Your task to perform on an android device: Clear the cart on amazon.com. Search for "acer predator" on amazon.com, select the first entry, and add it to the cart. Image 0: 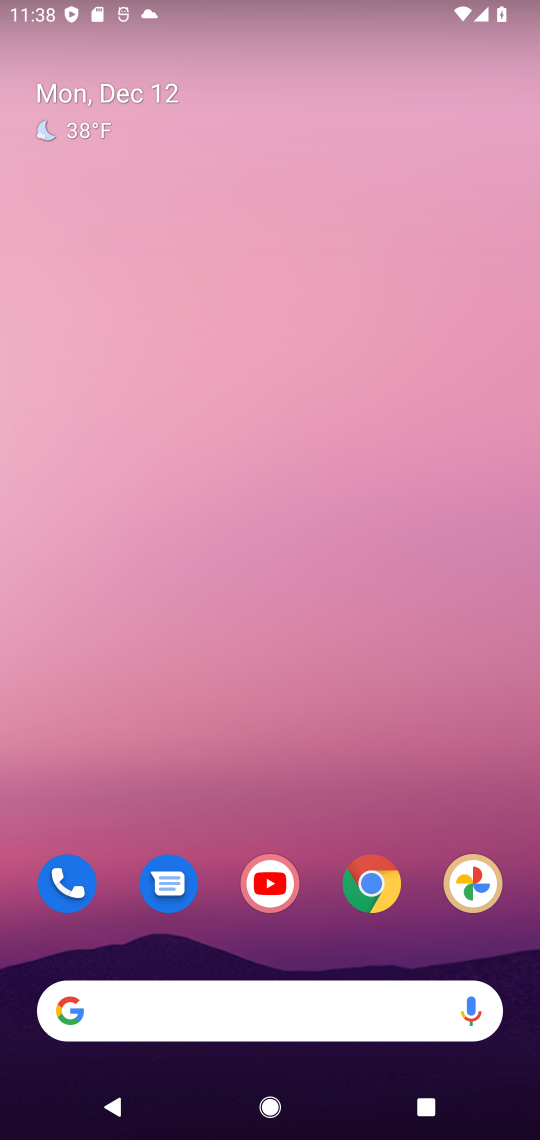
Step 0: click (245, 1009)
Your task to perform on an android device: Clear the cart on amazon.com. Search for "acer predator" on amazon.com, select the first entry, and add it to the cart. Image 1: 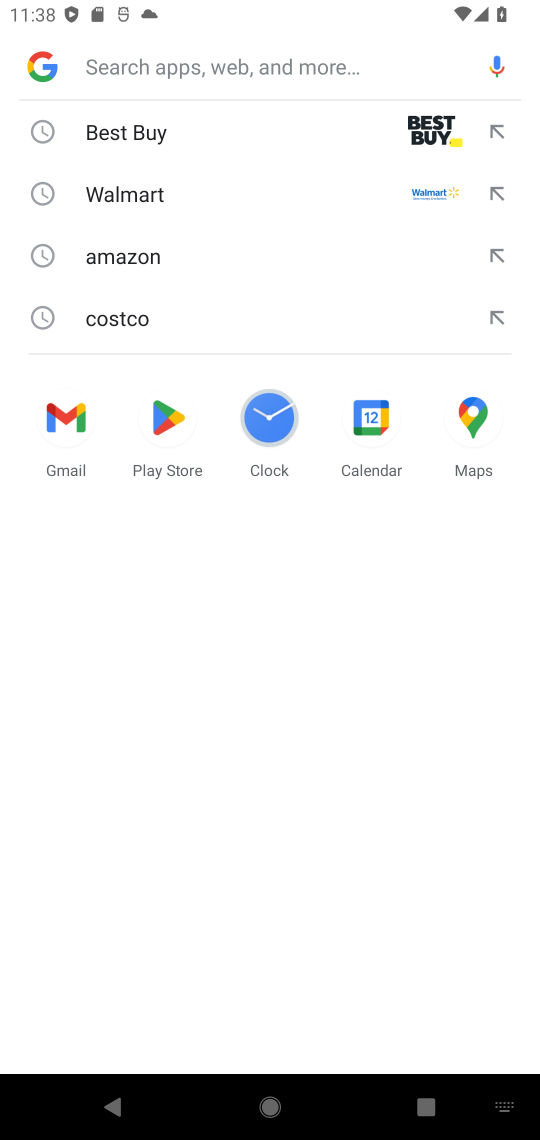
Step 1: click (163, 284)
Your task to perform on an android device: Clear the cart on amazon.com. Search for "acer predator" on amazon.com, select the first entry, and add it to the cart. Image 2: 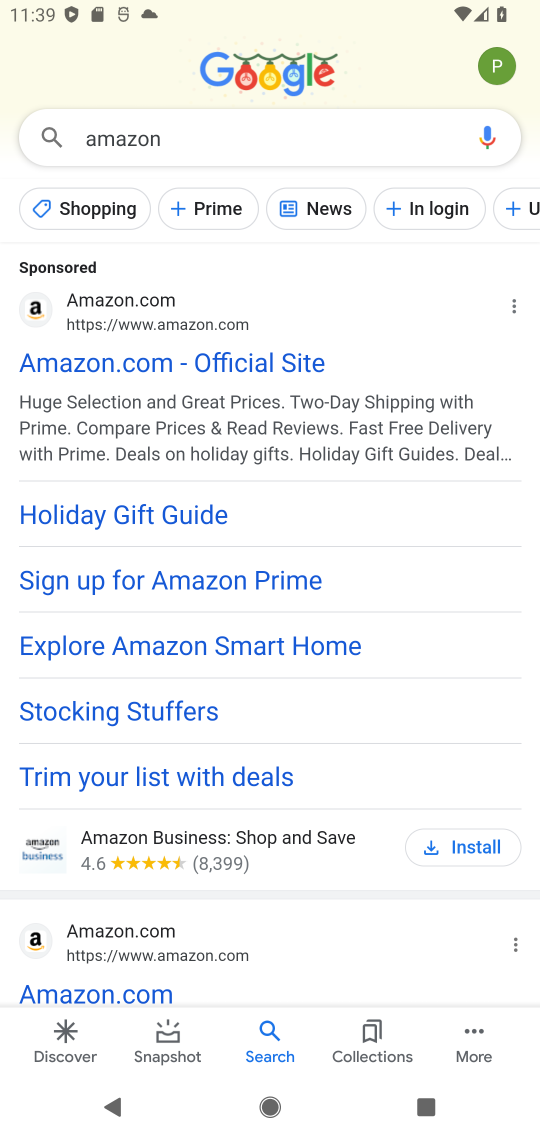
Step 2: click (123, 999)
Your task to perform on an android device: Clear the cart on amazon.com. Search for "acer predator" on amazon.com, select the first entry, and add it to the cart. Image 3: 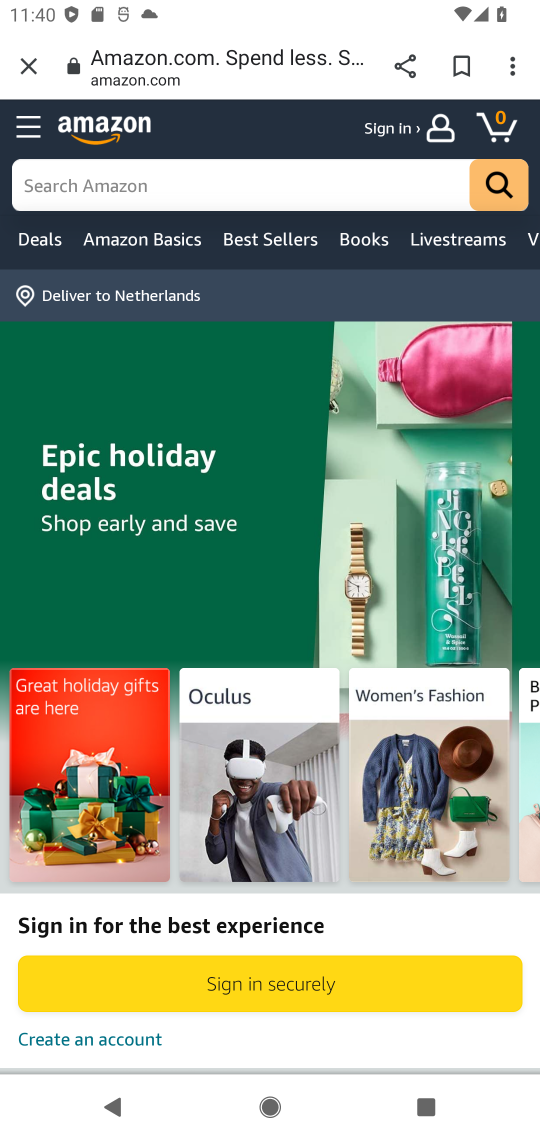
Step 3: click (363, 167)
Your task to perform on an android device: Clear the cart on amazon.com. Search for "acer predator" on amazon.com, select the first entry, and add it to the cart. Image 4: 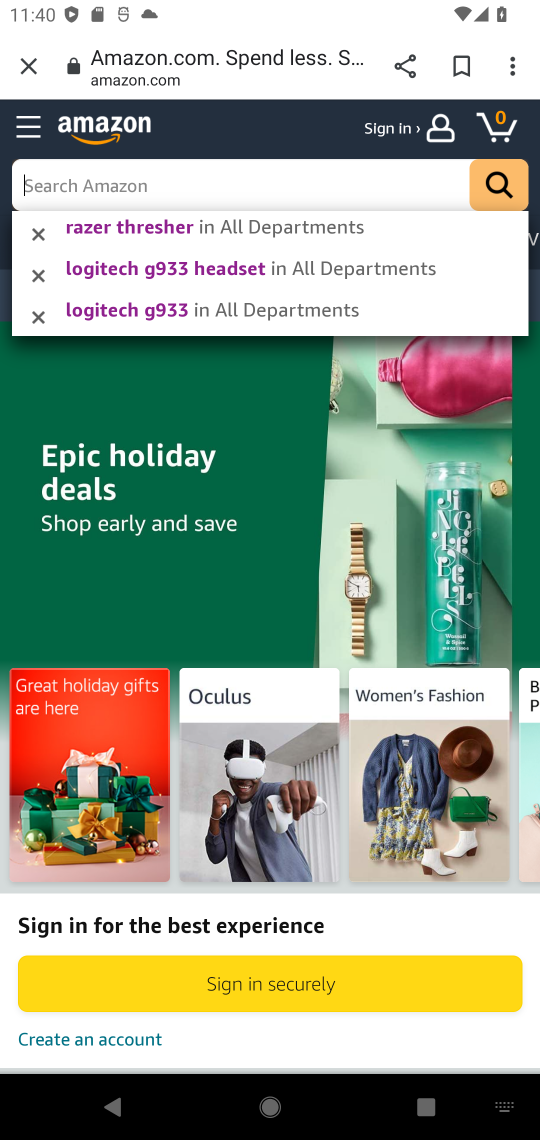
Step 4: type ""acer predator""
Your task to perform on an android device: Clear the cart on amazon.com. Search for "acer predator" on amazon.com, select the first entry, and add it to the cart. Image 5: 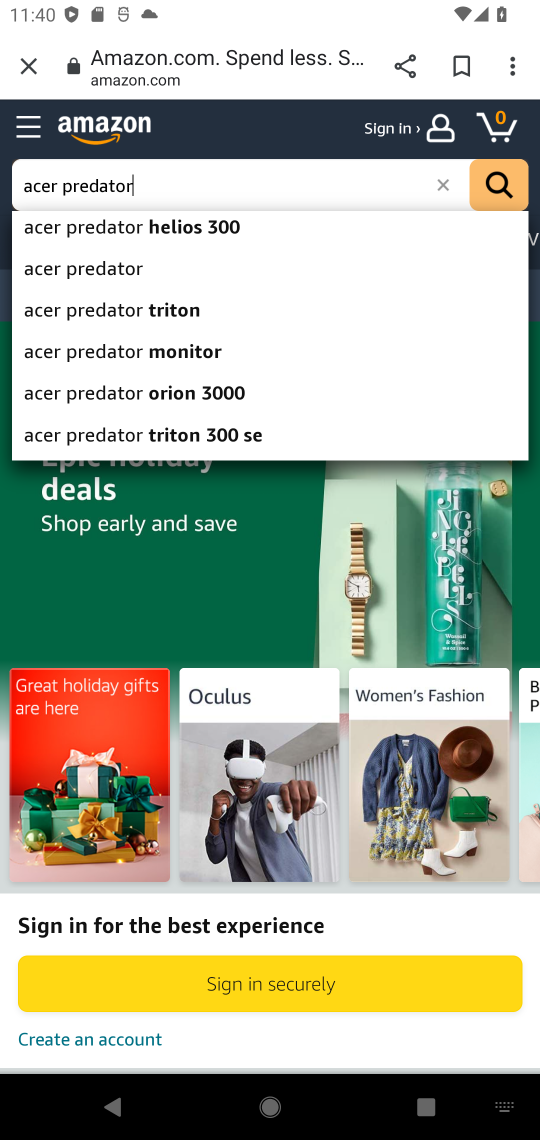
Step 5: click (92, 266)
Your task to perform on an android device: Clear the cart on amazon.com. Search for "acer predator" on amazon.com, select the first entry, and add it to the cart. Image 6: 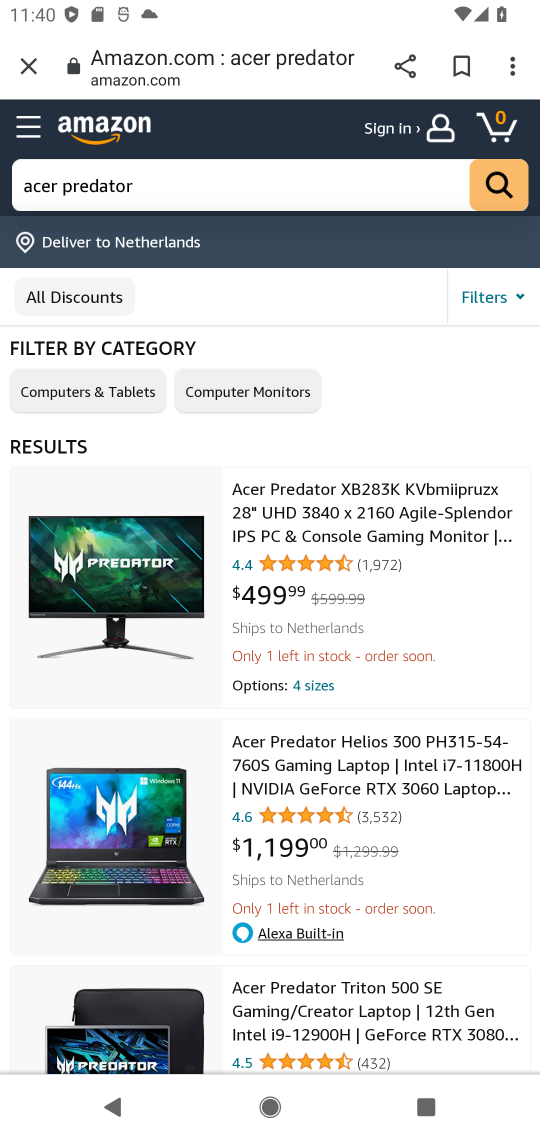
Step 6: click (349, 486)
Your task to perform on an android device: Clear the cart on amazon.com. Search for "acer predator" on amazon.com, select the first entry, and add it to the cart. Image 7: 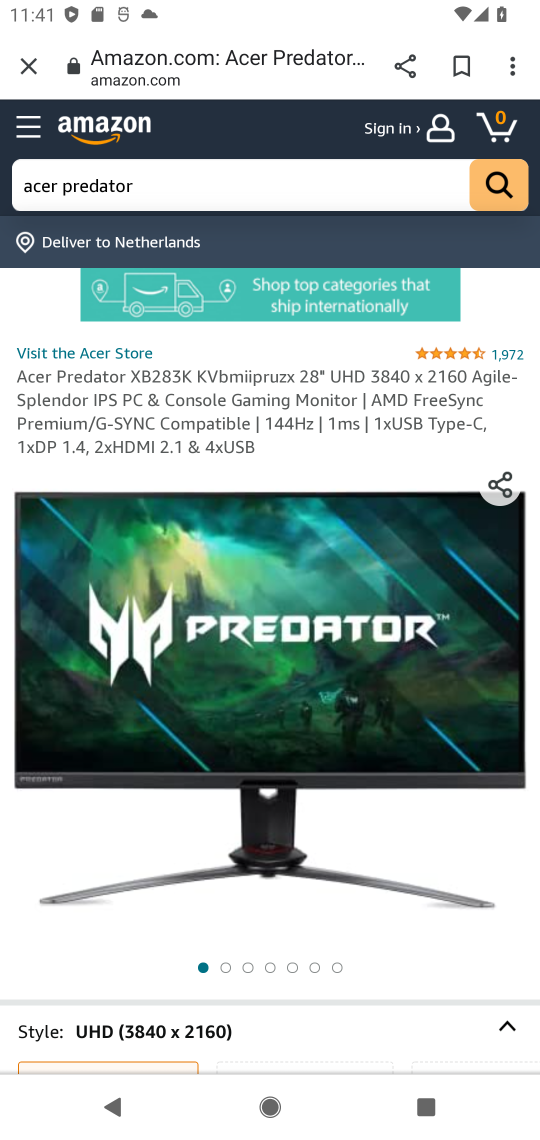
Step 7: click (420, 782)
Your task to perform on an android device: Clear the cart on amazon.com. Search for "acer predator" on amazon.com, select the first entry, and add it to the cart. Image 8: 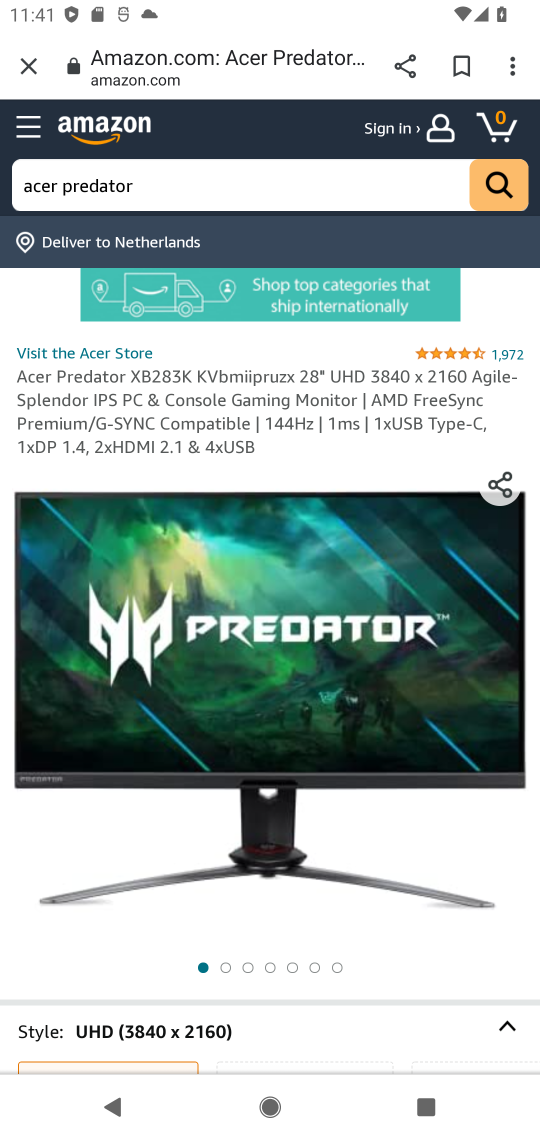
Step 8: drag from (398, 815) to (363, 510)
Your task to perform on an android device: Clear the cart on amazon.com. Search for "acer predator" on amazon.com, select the first entry, and add it to the cart. Image 9: 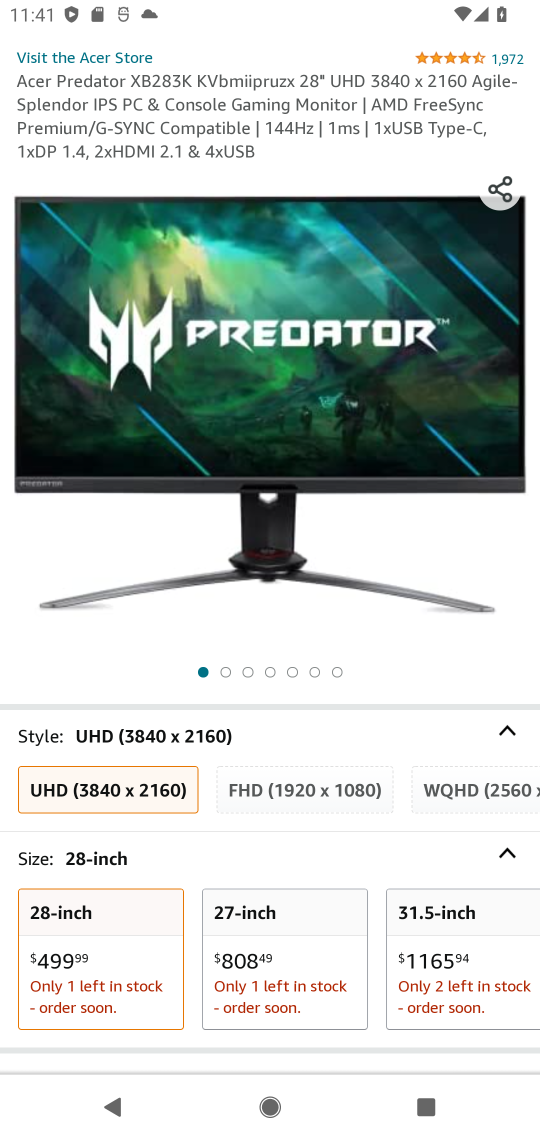
Step 9: click (75, 921)
Your task to perform on an android device: Clear the cart on amazon.com. Search for "acer predator" on amazon.com, select the first entry, and add it to the cart. Image 10: 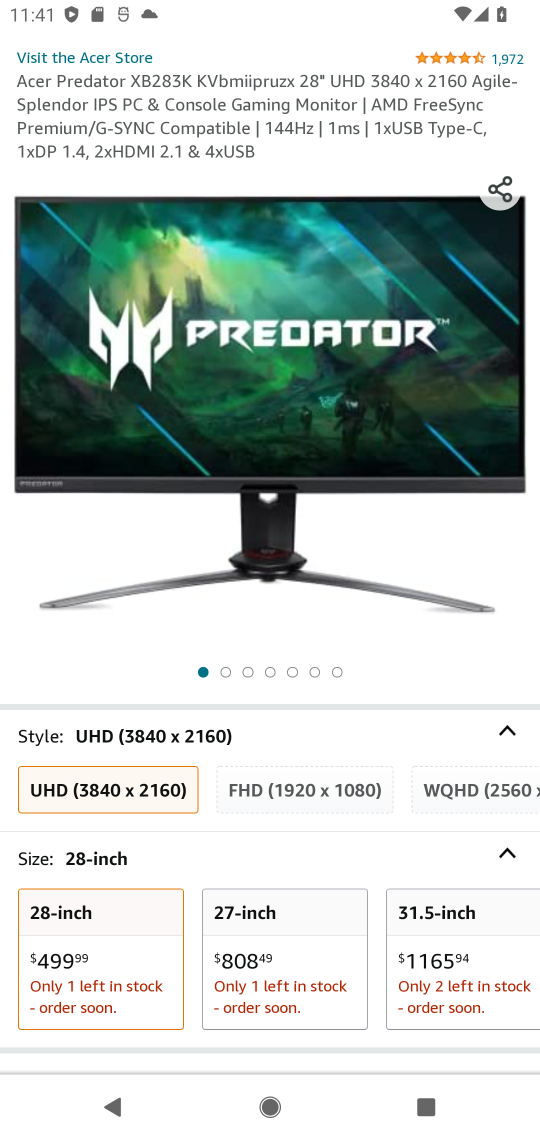
Step 10: click (104, 966)
Your task to perform on an android device: Clear the cart on amazon.com. Search for "acer predator" on amazon.com, select the first entry, and add it to the cart. Image 11: 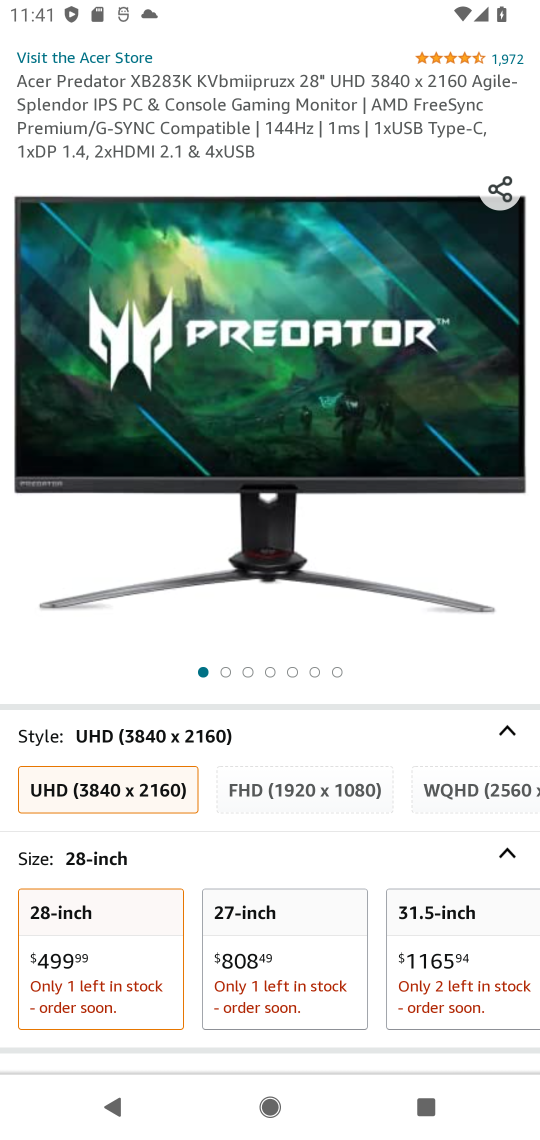
Step 11: drag from (339, 638) to (371, 301)
Your task to perform on an android device: Clear the cart on amazon.com. Search for "acer predator" on amazon.com, select the first entry, and add it to the cart. Image 12: 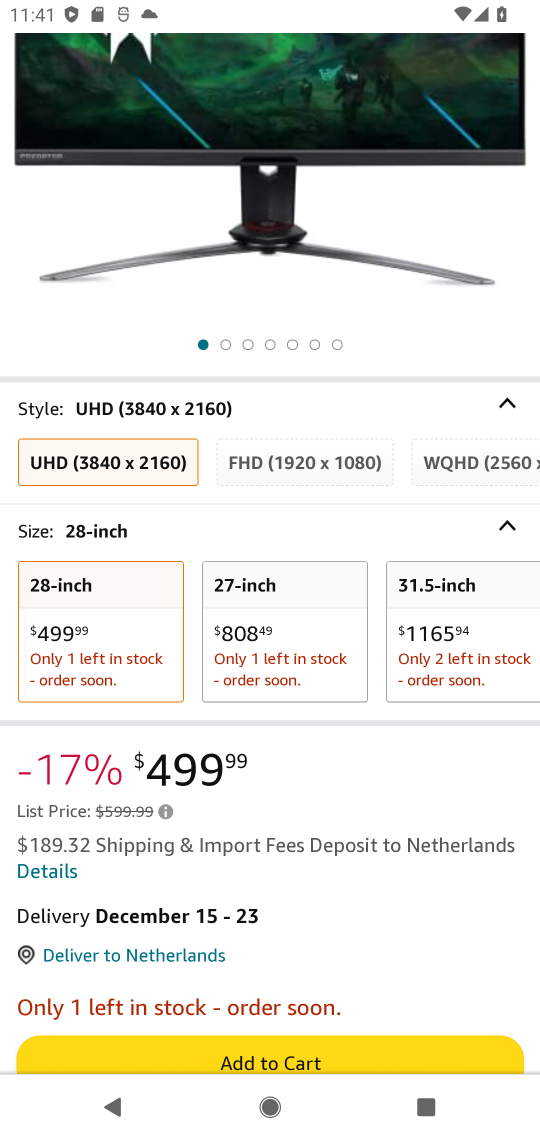
Step 12: click (328, 1045)
Your task to perform on an android device: Clear the cart on amazon.com. Search for "acer predator" on amazon.com, select the first entry, and add it to the cart. Image 13: 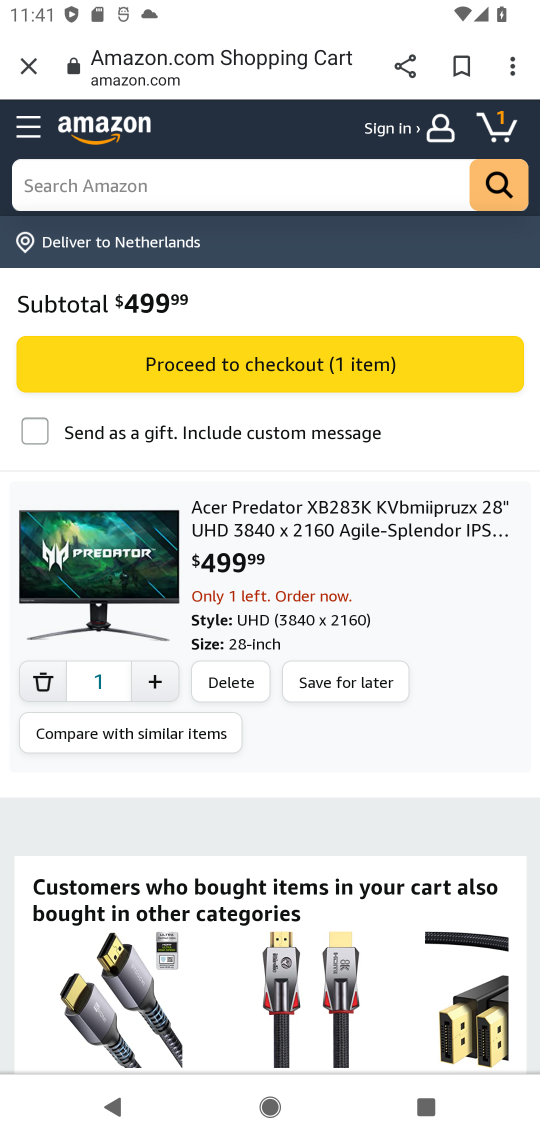
Step 13: task complete